Your task to perform on an android device: Show me popular videos on Youtube Image 0: 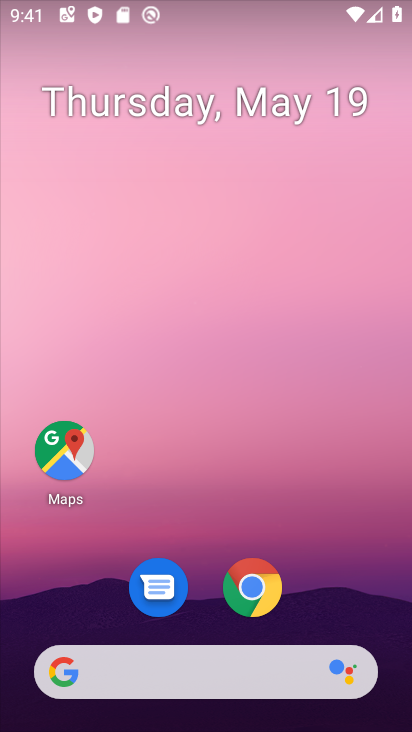
Step 0: drag from (236, 653) to (219, 155)
Your task to perform on an android device: Show me popular videos on Youtube Image 1: 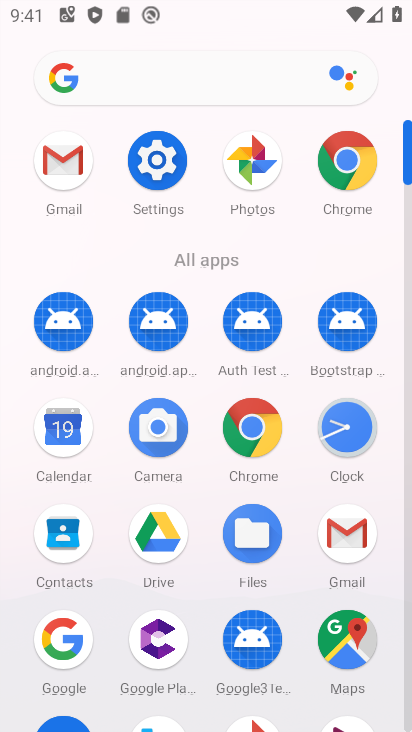
Step 1: drag from (228, 618) to (192, 119)
Your task to perform on an android device: Show me popular videos on Youtube Image 2: 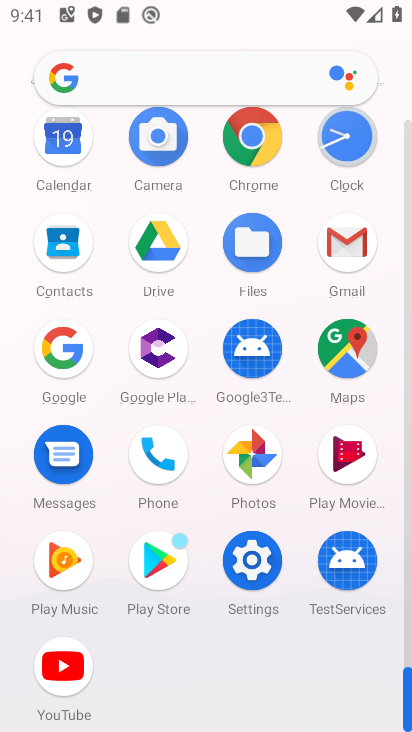
Step 2: click (59, 651)
Your task to perform on an android device: Show me popular videos on Youtube Image 3: 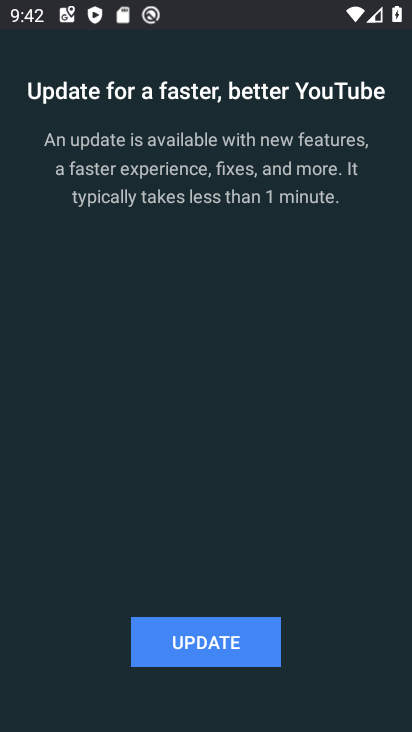
Step 3: click (233, 649)
Your task to perform on an android device: Show me popular videos on Youtube Image 4: 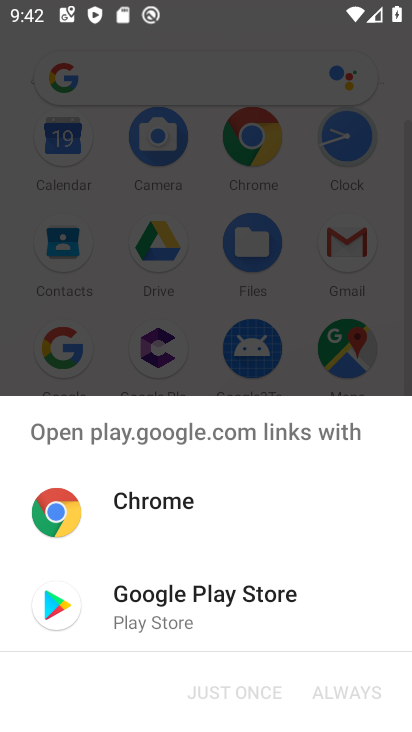
Step 4: click (178, 620)
Your task to perform on an android device: Show me popular videos on Youtube Image 5: 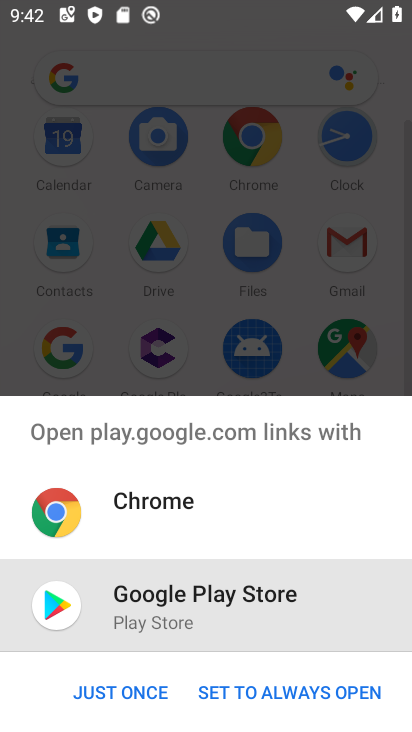
Step 5: click (97, 695)
Your task to perform on an android device: Show me popular videos on Youtube Image 6: 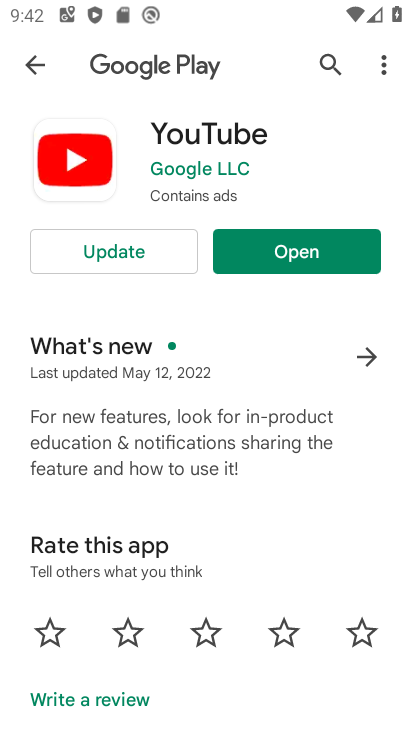
Step 6: click (122, 251)
Your task to perform on an android device: Show me popular videos on Youtube Image 7: 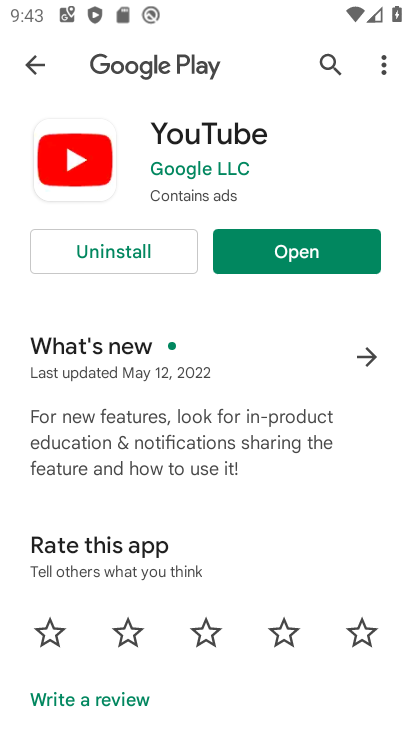
Step 7: click (284, 260)
Your task to perform on an android device: Show me popular videos on Youtube Image 8: 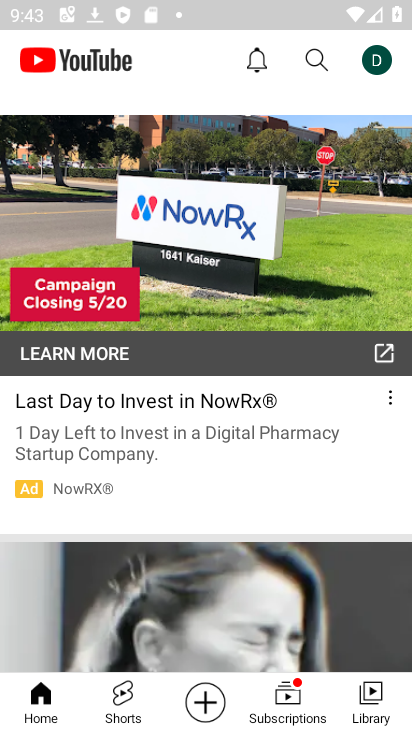
Step 8: task complete